Your task to perform on an android device: turn off location Image 0: 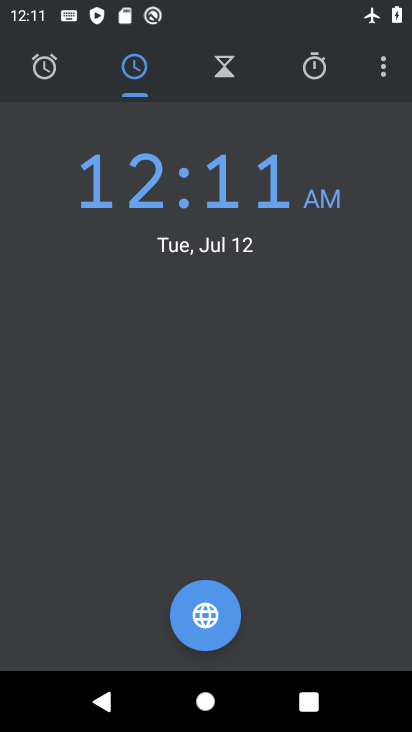
Step 0: press home button
Your task to perform on an android device: turn off location Image 1: 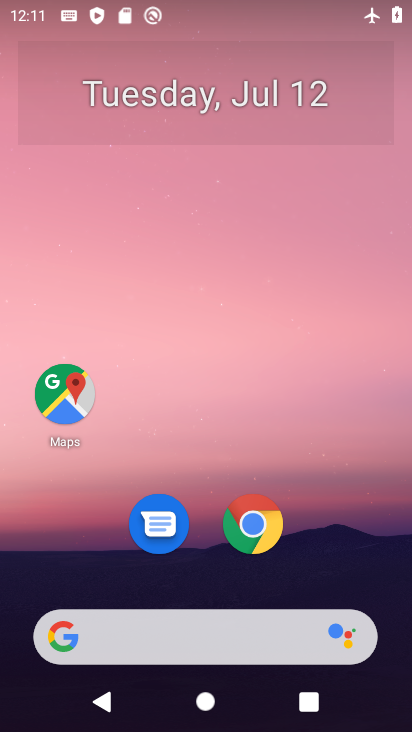
Step 1: drag from (317, 514) to (338, 10)
Your task to perform on an android device: turn off location Image 2: 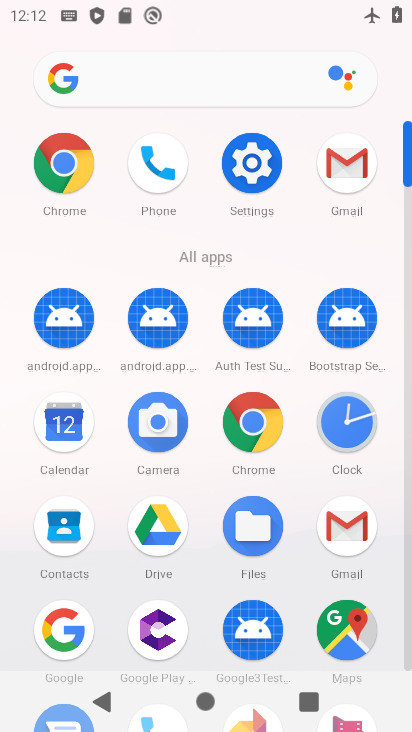
Step 2: click (270, 164)
Your task to perform on an android device: turn off location Image 3: 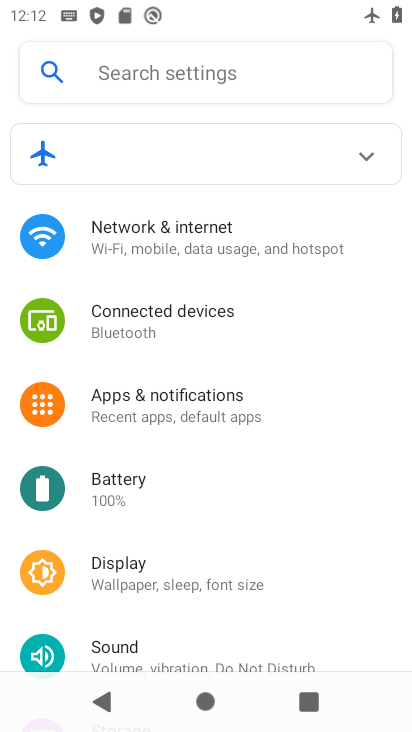
Step 3: drag from (208, 509) to (201, 92)
Your task to perform on an android device: turn off location Image 4: 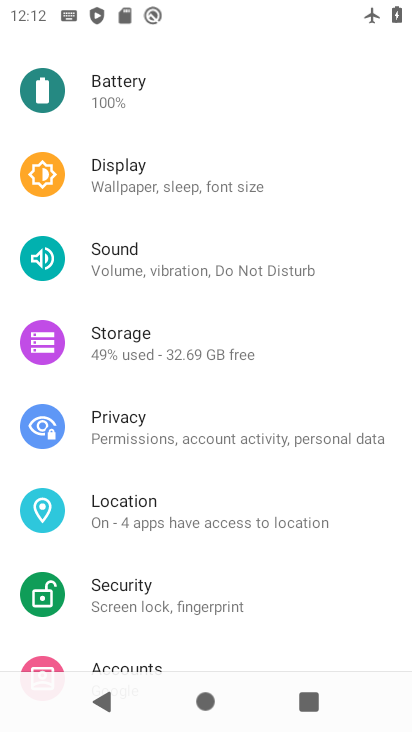
Step 4: click (198, 506)
Your task to perform on an android device: turn off location Image 5: 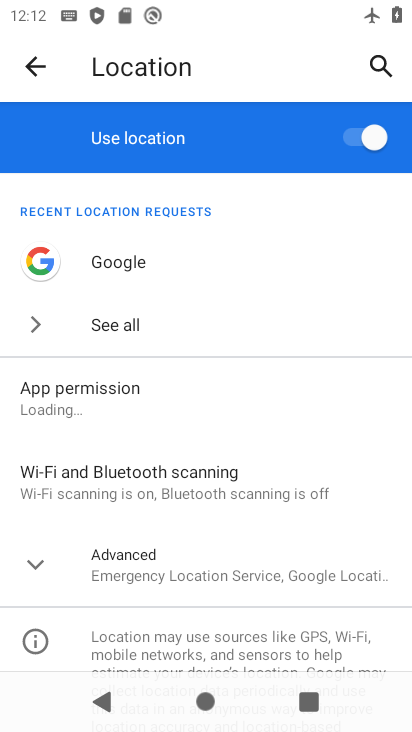
Step 5: click (355, 131)
Your task to perform on an android device: turn off location Image 6: 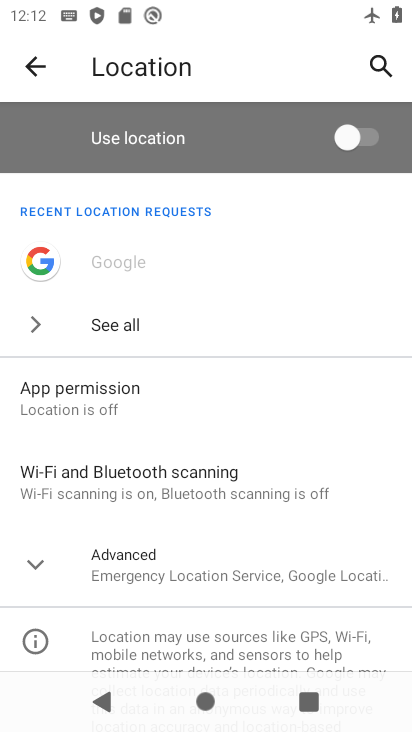
Step 6: task complete